Your task to perform on an android device: open app "Facebook Messenger" (install if not already installed) Image 0: 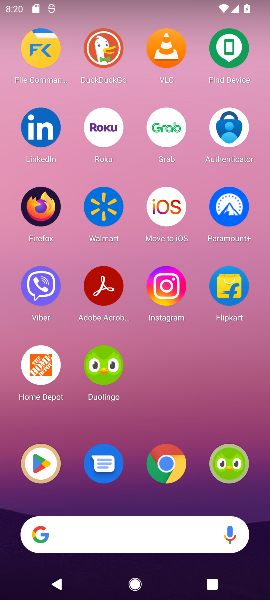
Step 0: click (34, 472)
Your task to perform on an android device: open app "Facebook Messenger" (install if not already installed) Image 1: 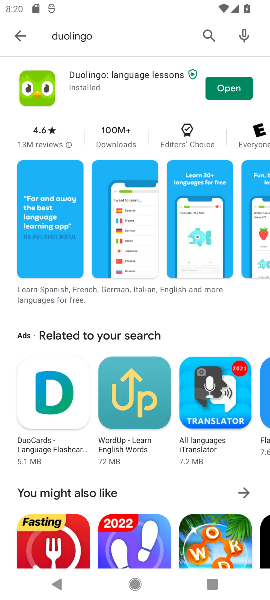
Step 1: click (199, 45)
Your task to perform on an android device: open app "Facebook Messenger" (install if not already installed) Image 2: 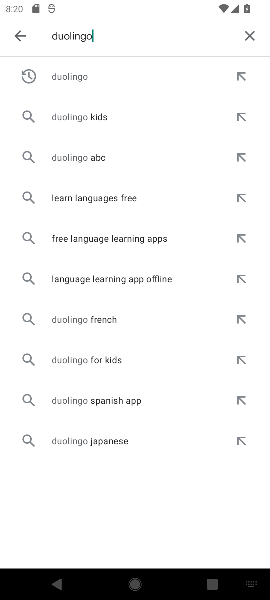
Step 2: click (240, 47)
Your task to perform on an android device: open app "Facebook Messenger" (install if not already installed) Image 3: 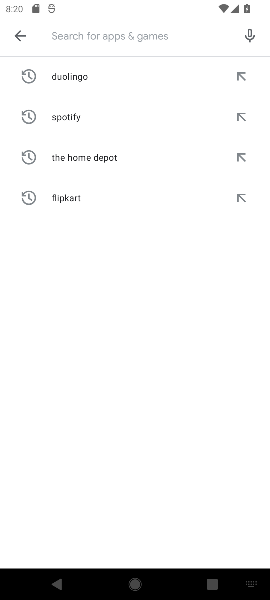
Step 3: type "facebook messanger"
Your task to perform on an android device: open app "Facebook Messenger" (install if not already installed) Image 4: 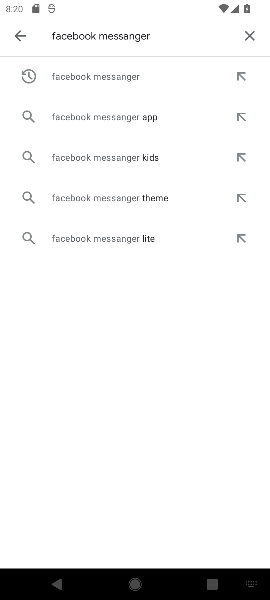
Step 4: click (114, 74)
Your task to perform on an android device: open app "Facebook Messenger" (install if not already installed) Image 5: 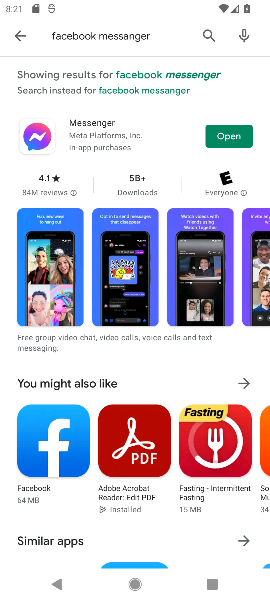
Step 5: click (229, 138)
Your task to perform on an android device: open app "Facebook Messenger" (install if not already installed) Image 6: 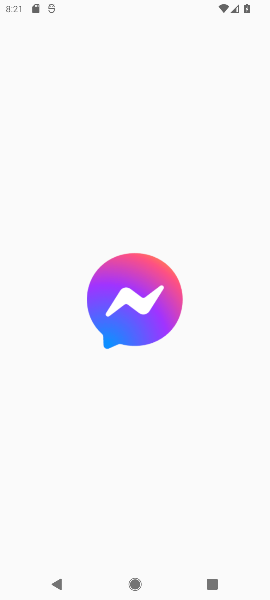
Step 6: task complete